Your task to perform on an android device: check battery use Image 0: 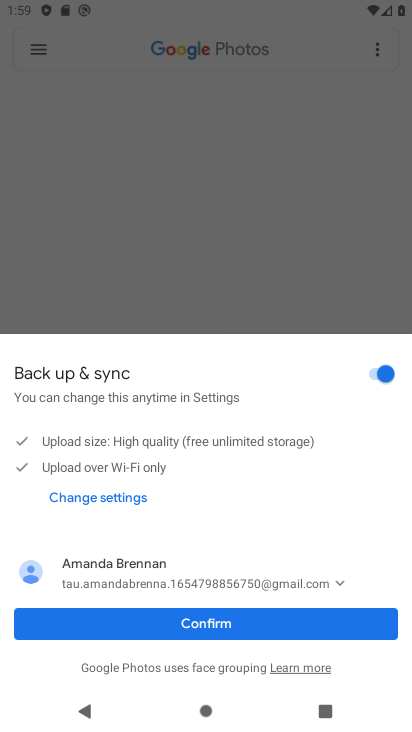
Step 0: press home button
Your task to perform on an android device: check battery use Image 1: 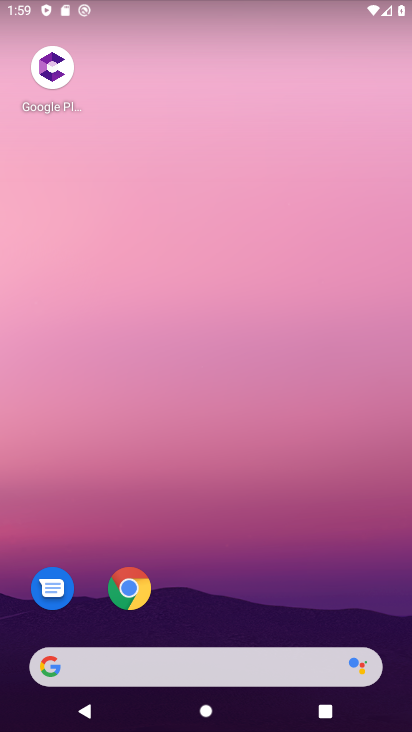
Step 1: drag from (285, 626) to (198, 224)
Your task to perform on an android device: check battery use Image 2: 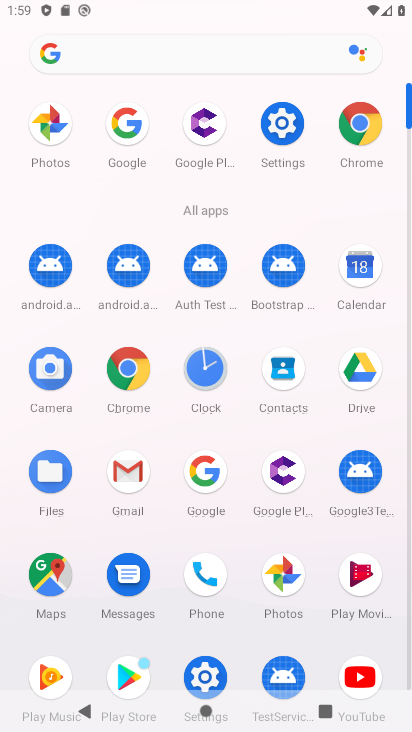
Step 2: click (292, 130)
Your task to perform on an android device: check battery use Image 3: 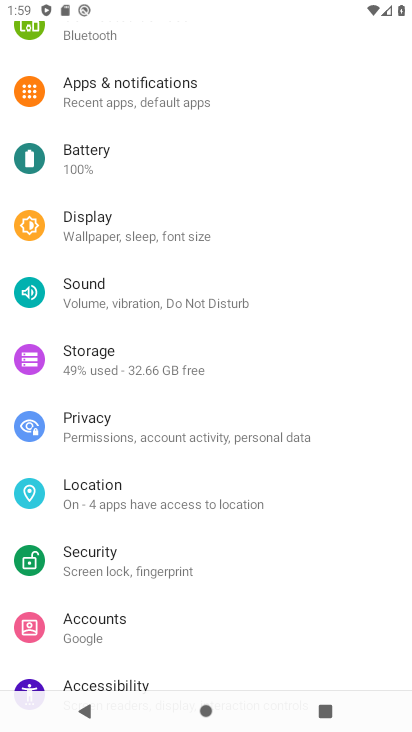
Step 3: click (137, 165)
Your task to perform on an android device: check battery use Image 4: 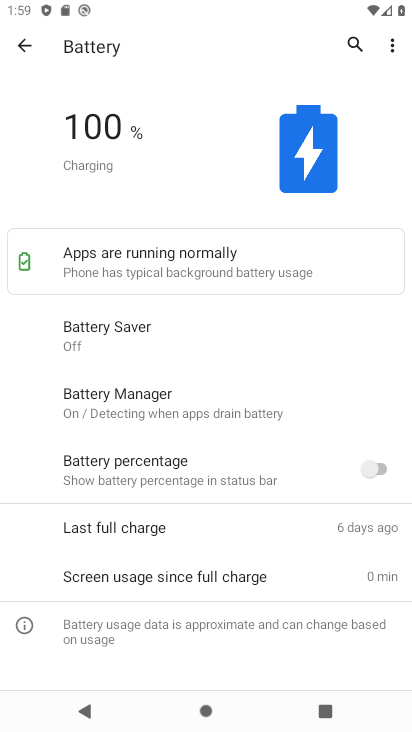
Step 4: click (397, 47)
Your task to perform on an android device: check battery use Image 5: 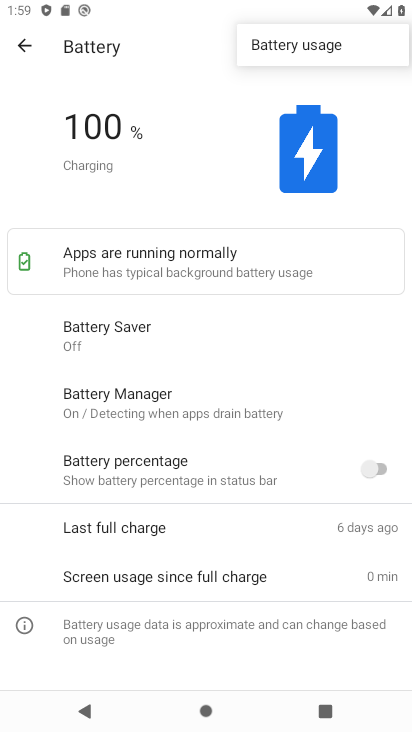
Step 5: click (351, 50)
Your task to perform on an android device: check battery use Image 6: 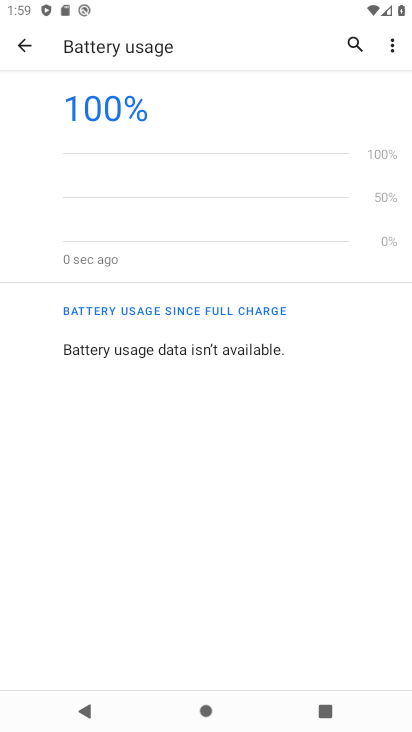
Step 6: task complete